Your task to perform on an android device: What's the weather going to be tomorrow? Image 0: 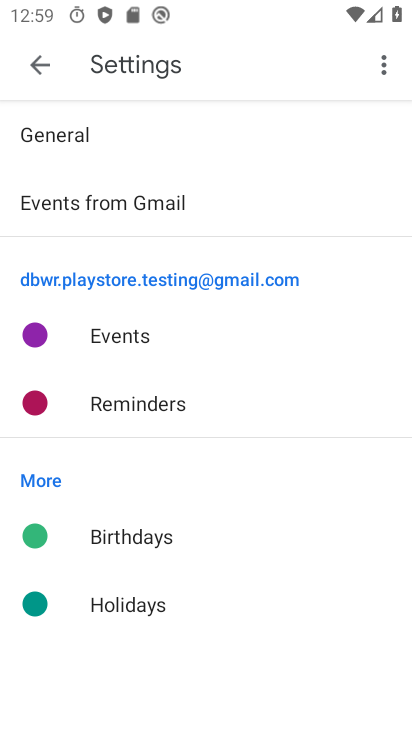
Step 0: press home button
Your task to perform on an android device: What's the weather going to be tomorrow? Image 1: 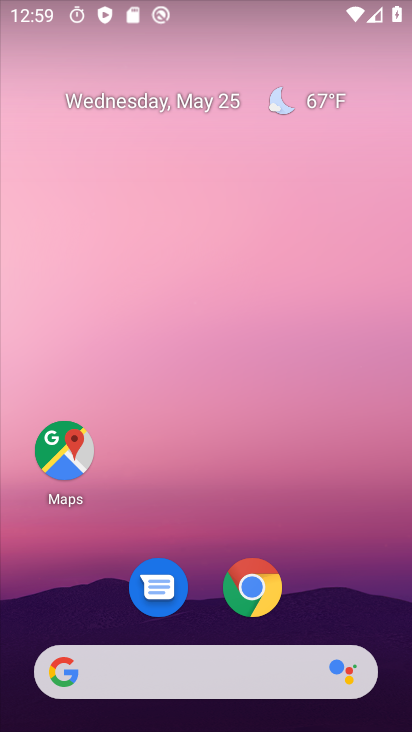
Step 1: click (279, 101)
Your task to perform on an android device: What's the weather going to be tomorrow? Image 2: 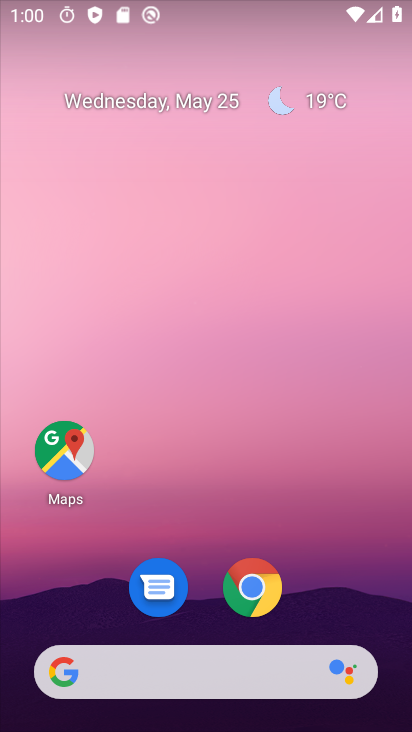
Step 2: click (273, 101)
Your task to perform on an android device: What's the weather going to be tomorrow? Image 3: 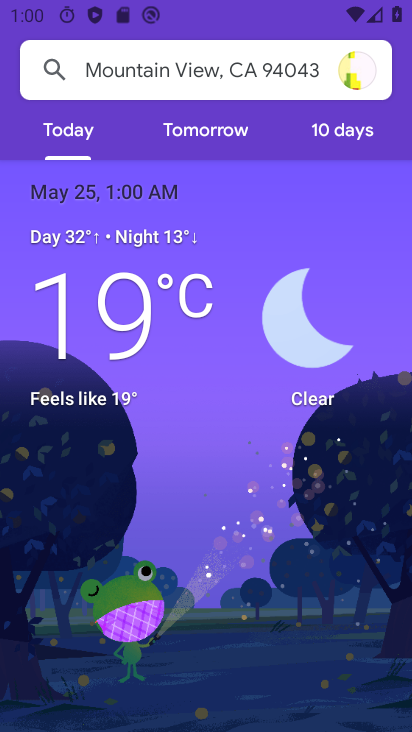
Step 3: click (221, 134)
Your task to perform on an android device: What's the weather going to be tomorrow? Image 4: 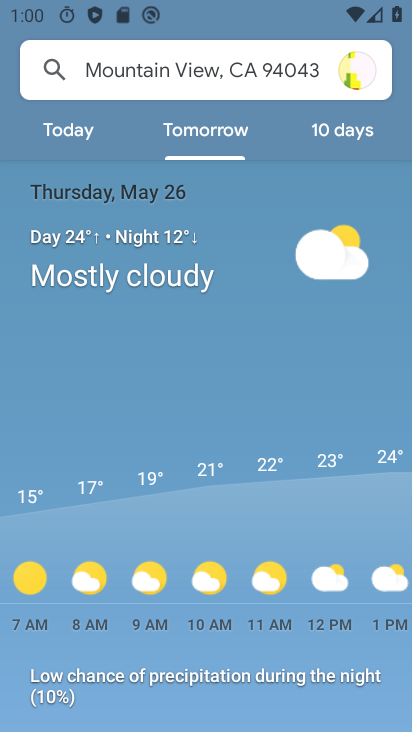
Step 4: task complete